Your task to perform on an android device: Empty the shopping cart on target. Image 0: 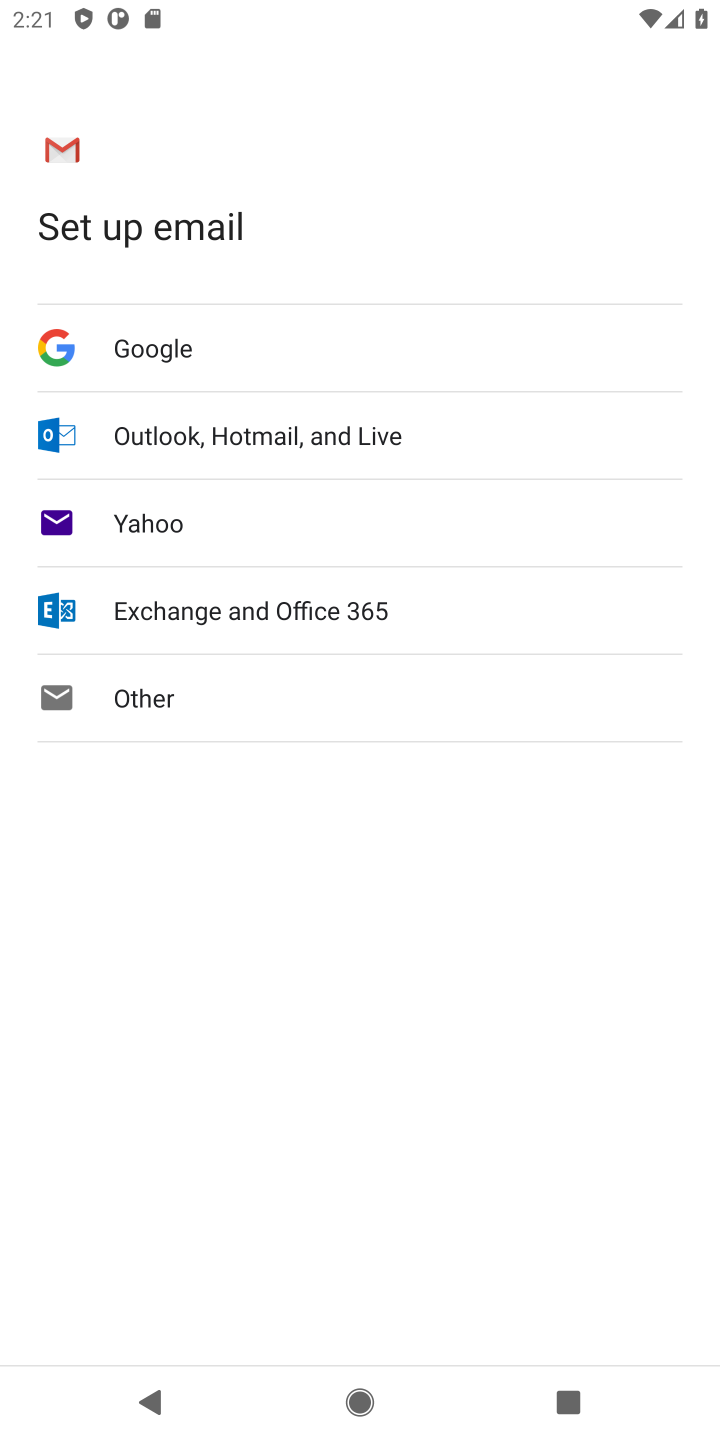
Step 0: press home button
Your task to perform on an android device: Empty the shopping cart on target. Image 1: 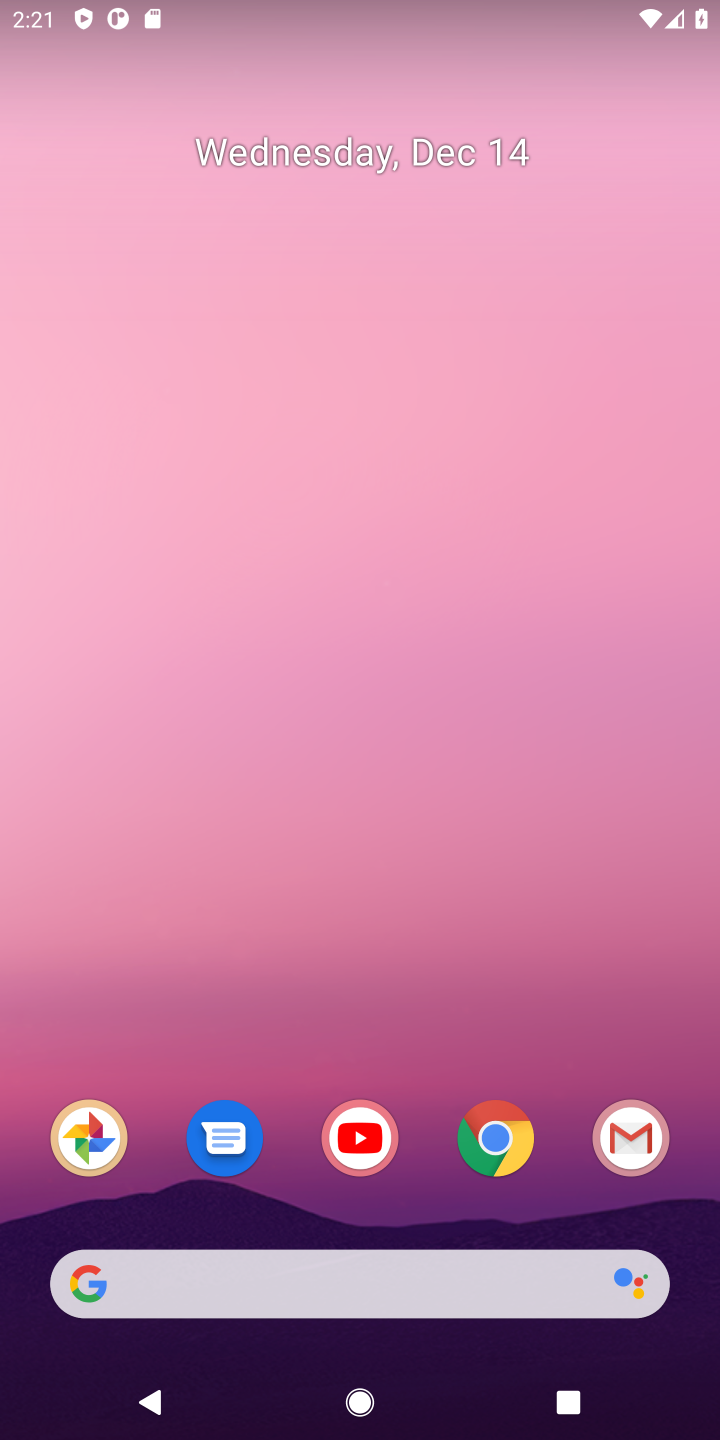
Step 1: click (482, 1118)
Your task to perform on an android device: Empty the shopping cart on target. Image 2: 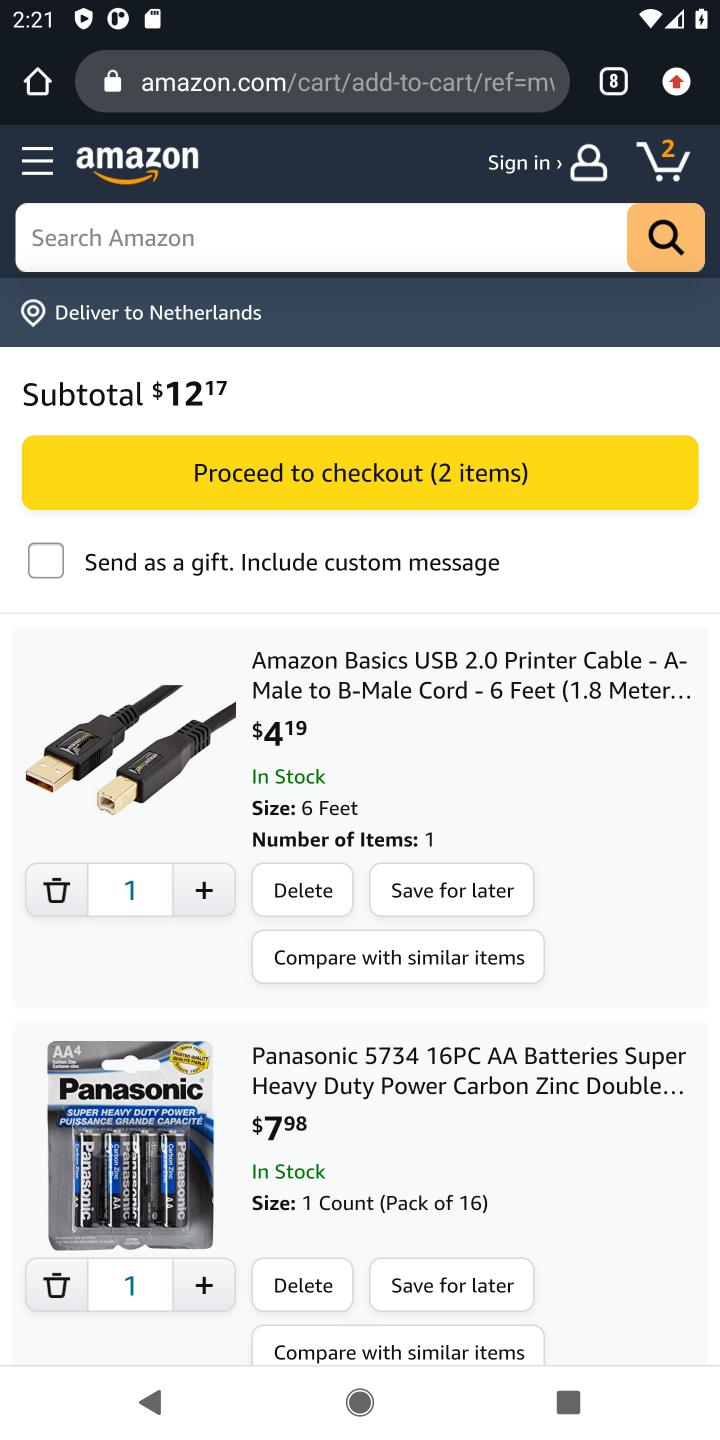
Step 2: click (611, 86)
Your task to perform on an android device: Empty the shopping cart on target. Image 3: 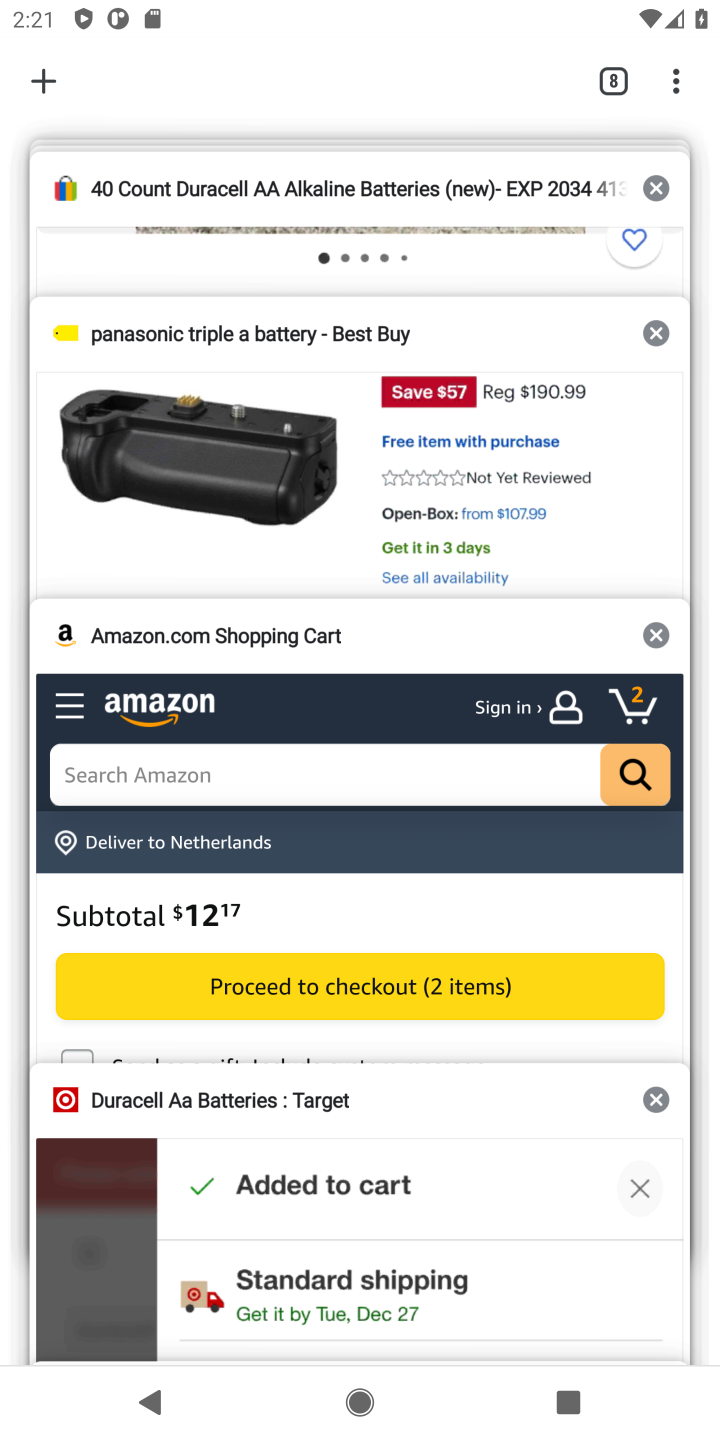
Step 3: click (197, 1198)
Your task to perform on an android device: Empty the shopping cart on target. Image 4: 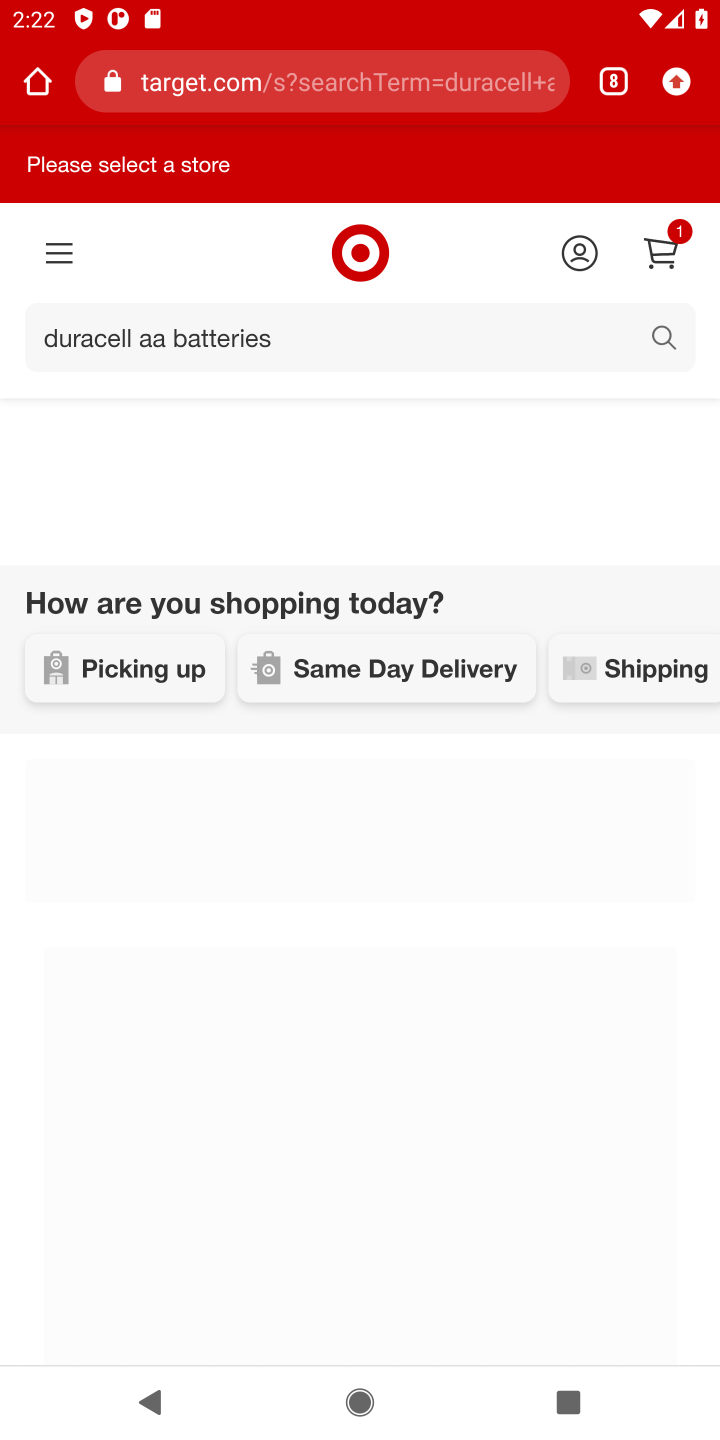
Step 4: click (655, 248)
Your task to perform on an android device: Empty the shopping cart on target. Image 5: 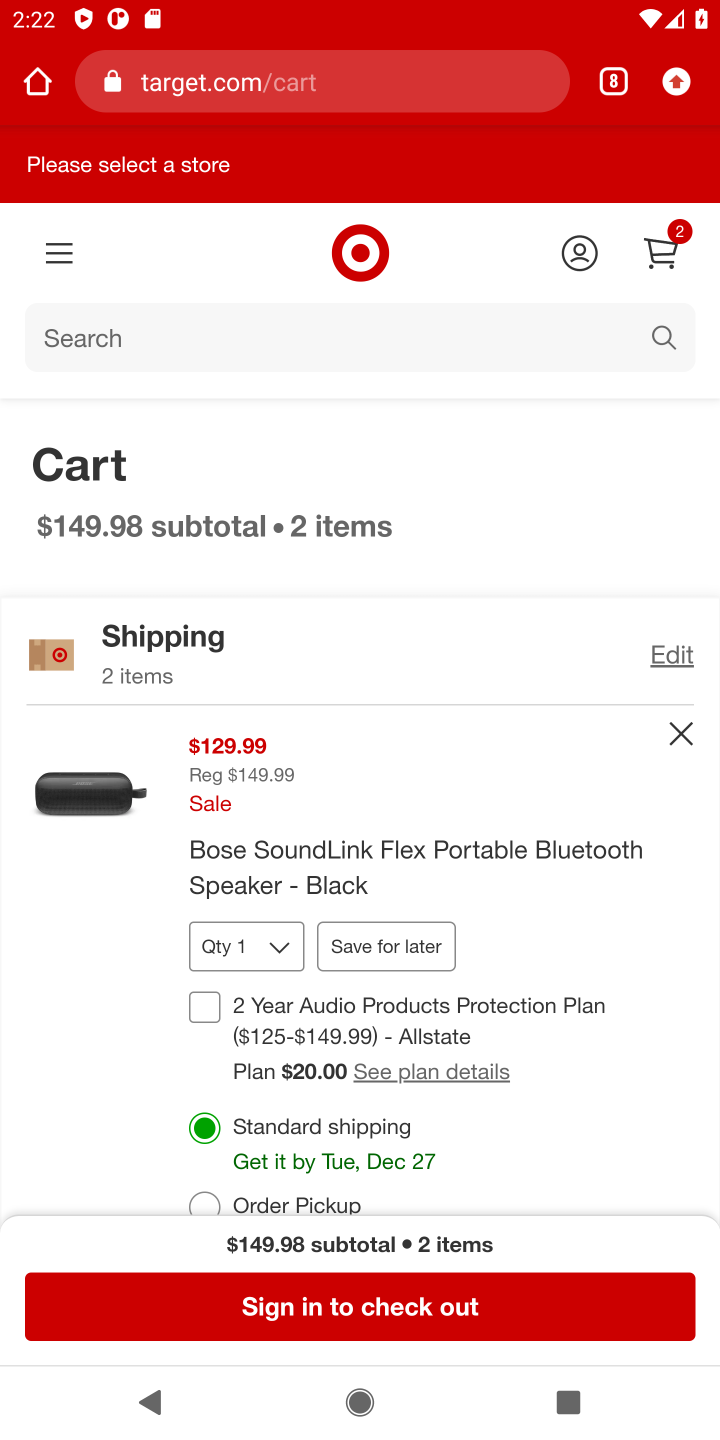
Step 5: click (680, 723)
Your task to perform on an android device: Empty the shopping cart on target. Image 6: 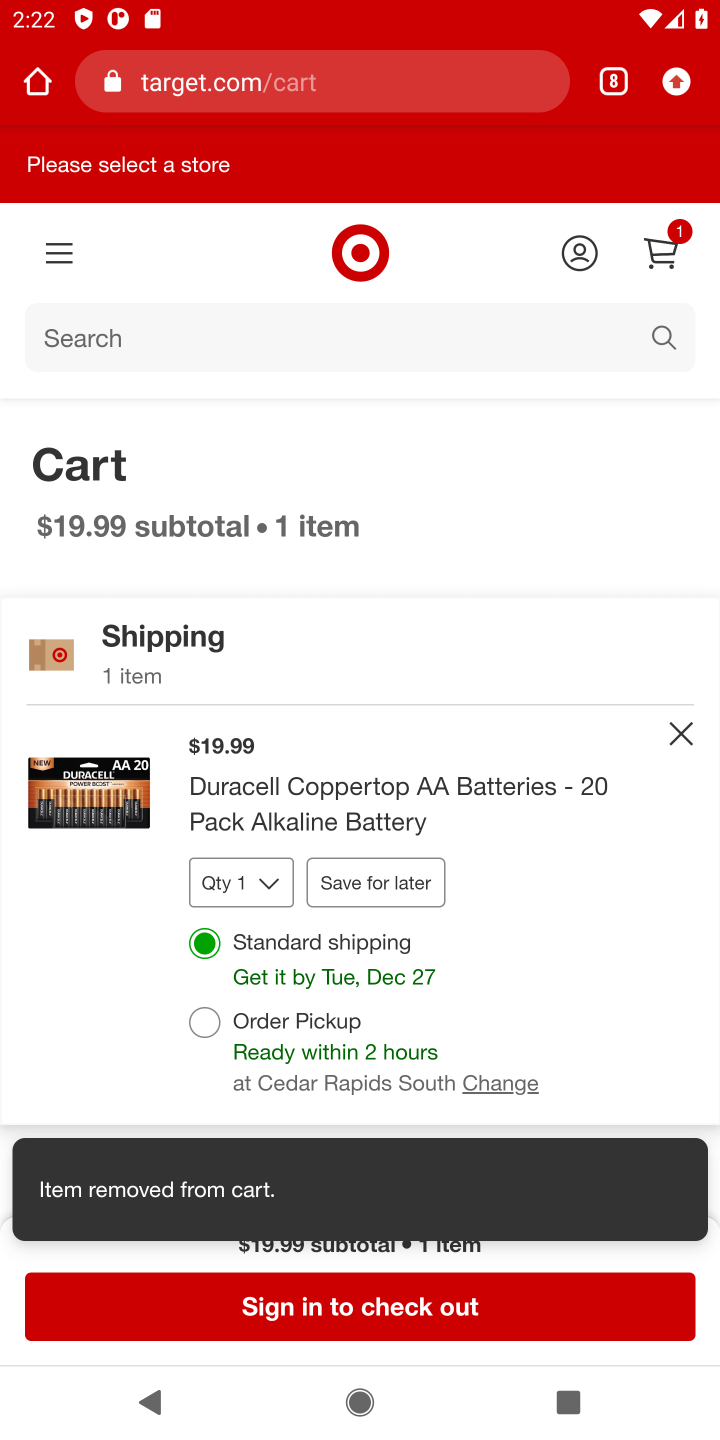
Step 6: click (680, 723)
Your task to perform on an android device: Empty the shopping cart on target. Image 7: 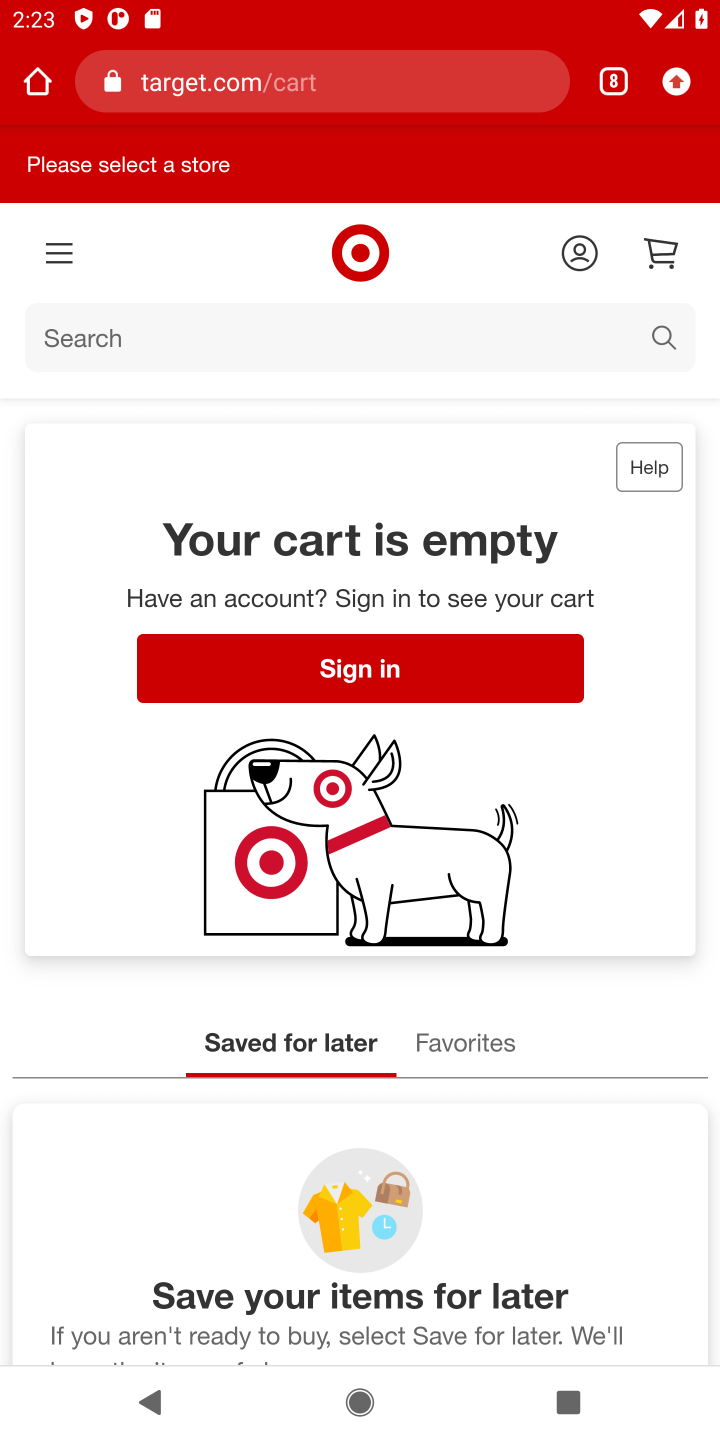
Step 7: task complete